Your task to perform on an android device: toggle location history Image 0: 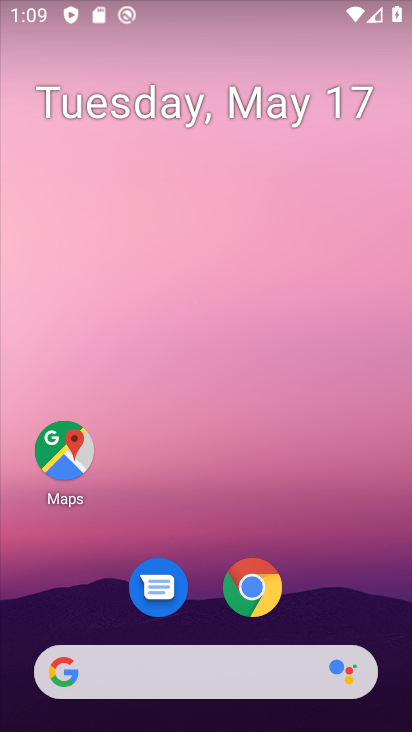
Step 0: drag from (320, 565) to (323, 55)
Your task to perform on an android device: toggle location history Image 1: 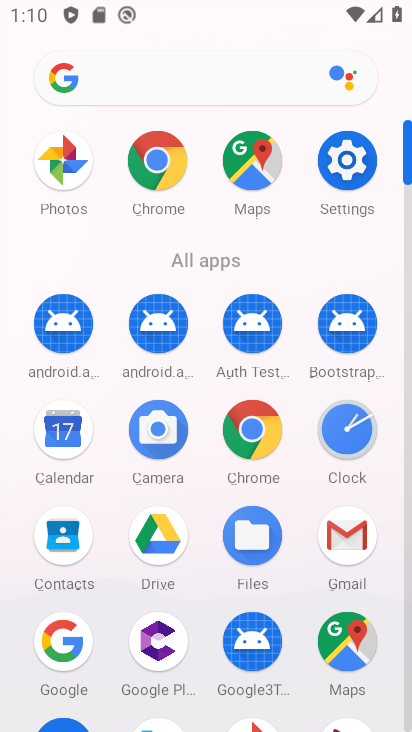
Step 1: click (347, 162)
Your task to perform on an android device: toggle location history Image 2: 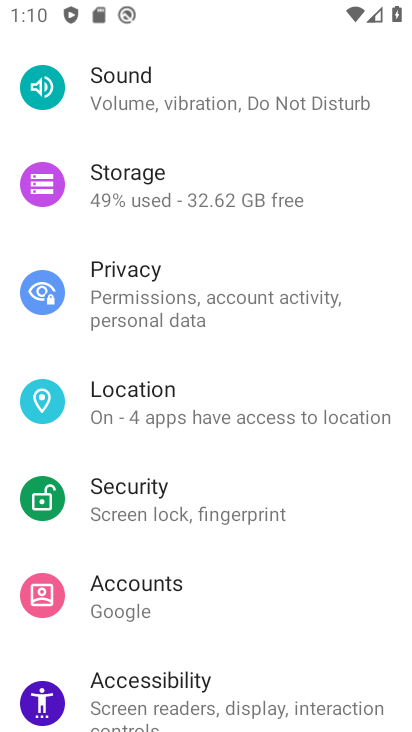
Step 2: drag from (232, 631) to (234, 335)
Your task to perform on an android device: toggle location history Image 3: 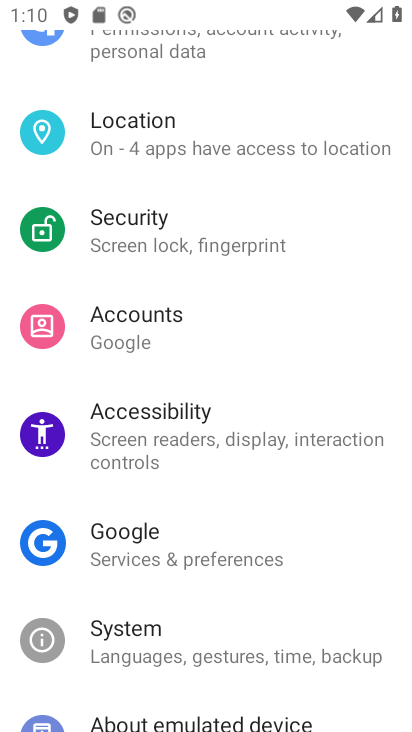
Step 3: click (221, 128)
Your task to perform on an android device: toggle location history Image 4: 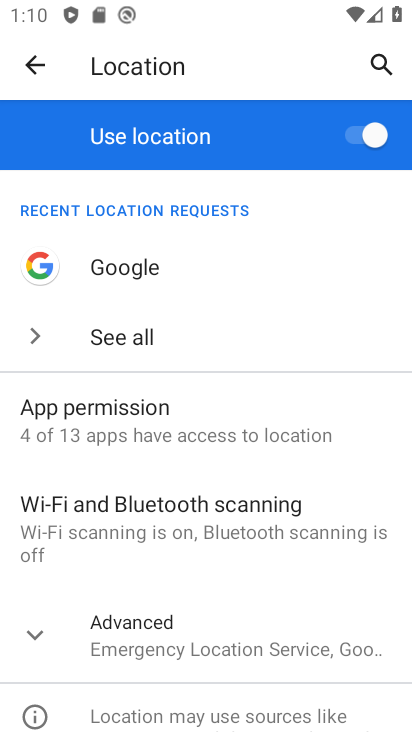
Step 4: drag from (292, 612) to (305, 223)
Your task to perform on an android device: toggle location history Image 5: 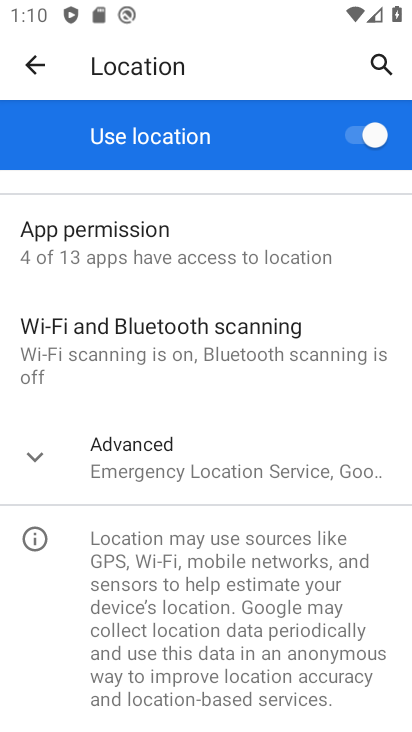
Step 5: click (245, 464)
Your task to perform on an android device: toggle location history Image 6: 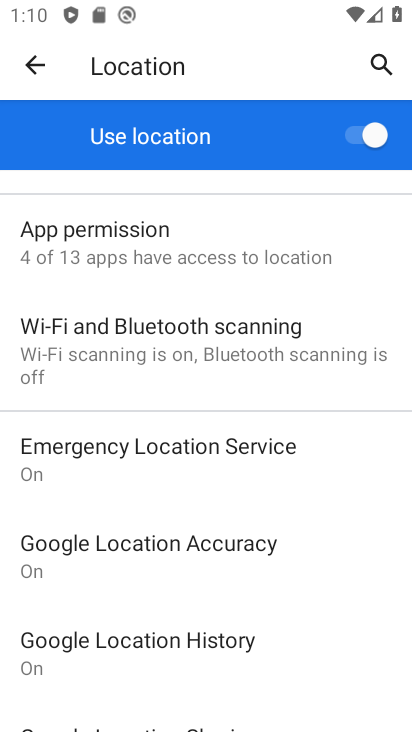
Step 6: click (203, 638)
Your task to perform on an android device: toggle location history Image 7: 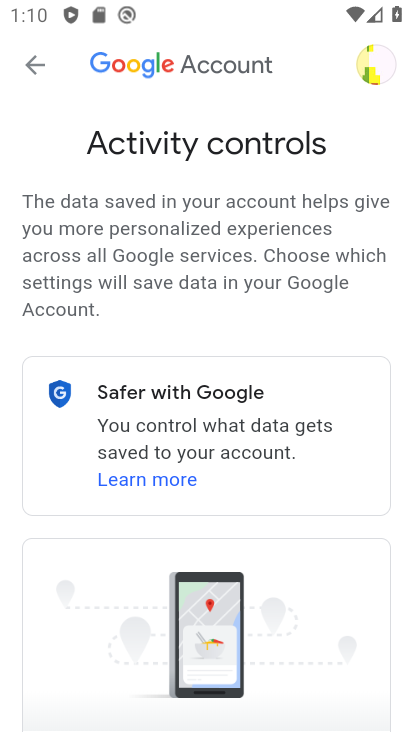
Step 7: drag from (300, 654) to (346, 297)
Your task to perform on an android device: toggle location history Image 8: 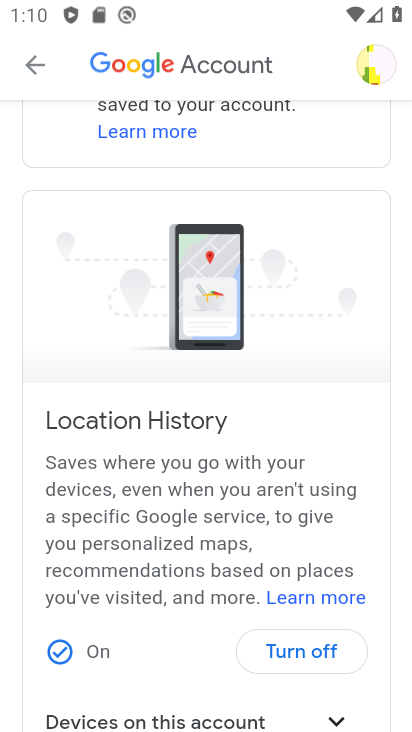
Step 8: click (322, 656)
Your task to perform on an android device: toggle location history Image 9: 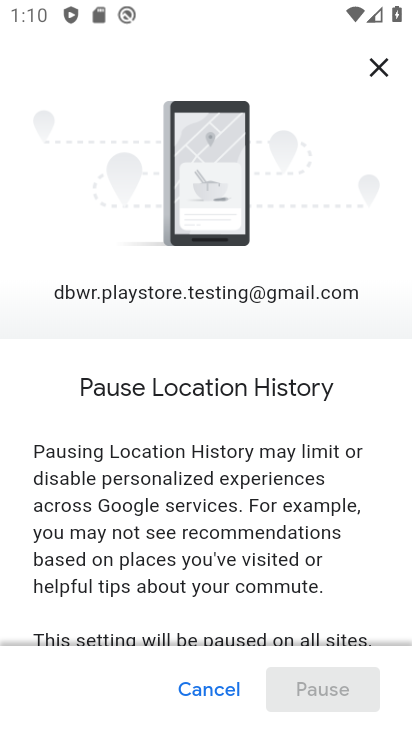
Step 9: drag from (251, 598) to (248, 168)
Your task to perform on an android device: toggle location history Image 10: 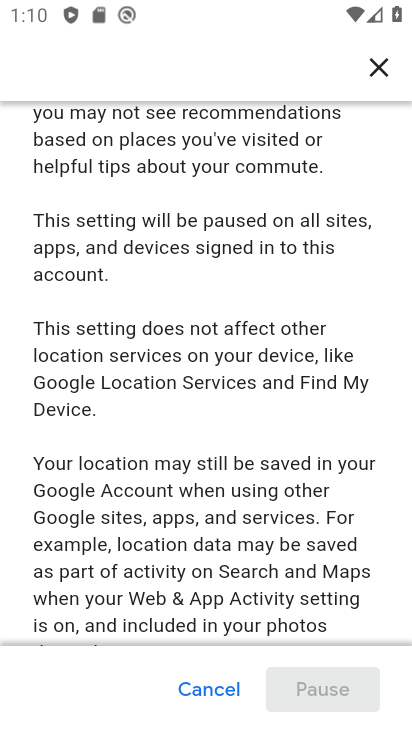
Step 10: drag from (288, 587) to (304, 139)
Your task to perform on an android device: toggle location history Image 11: 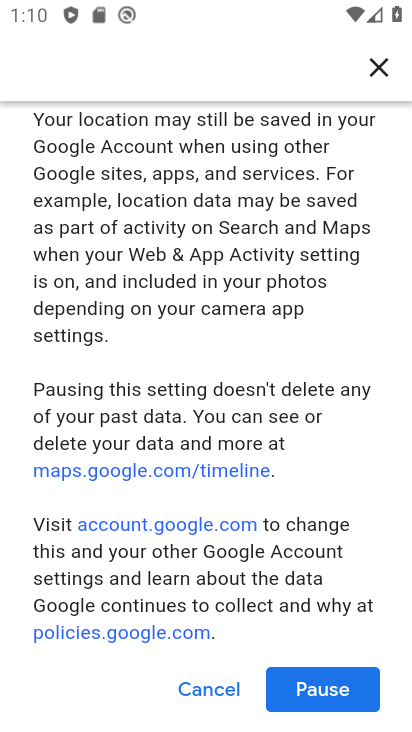
Step 11: click (309, 677)
Your task to perform on an android device: toggle location history Image 12: 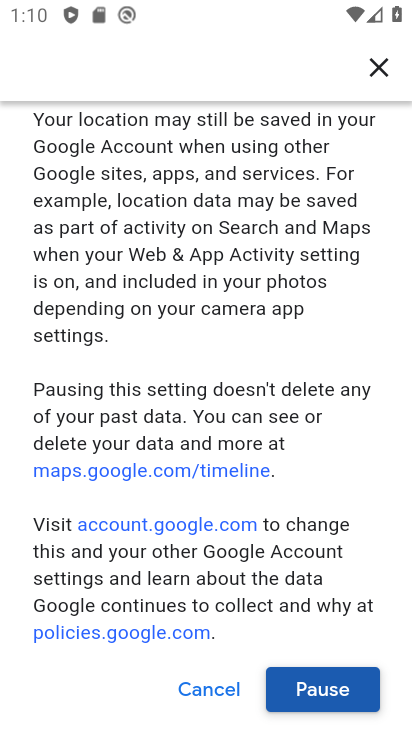
Step 12: click (309, 677)
Your task to perform on an android device: toggle location history Image 13: 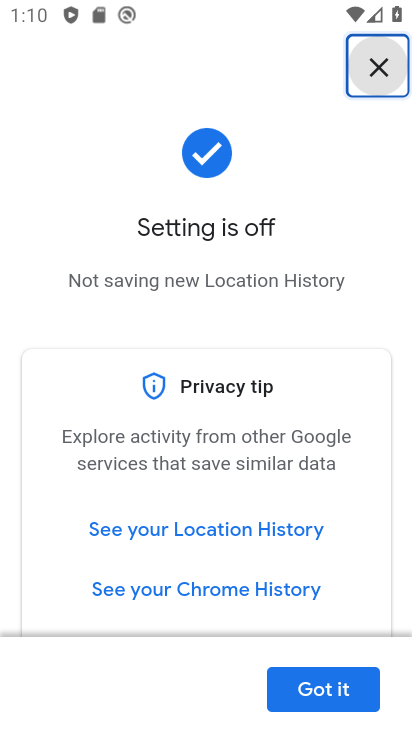
Step 13: task complete